Your task to perform on an android device: turn off notifications settings in the gmail app Image 0: 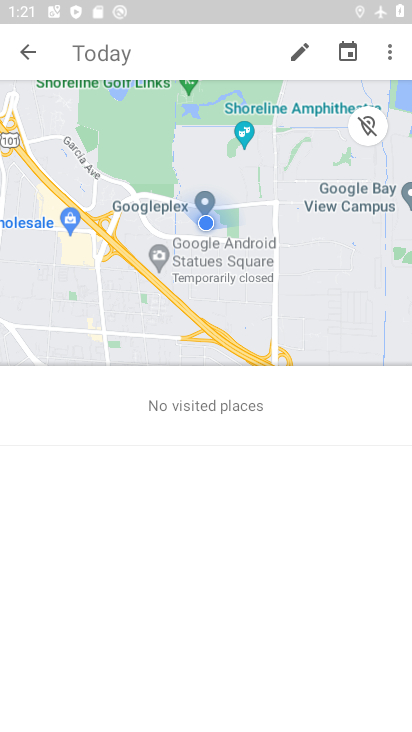
Step 0: press home button
Your task to perform on an android device: turn off notifications settings in the gmail app Image 1: 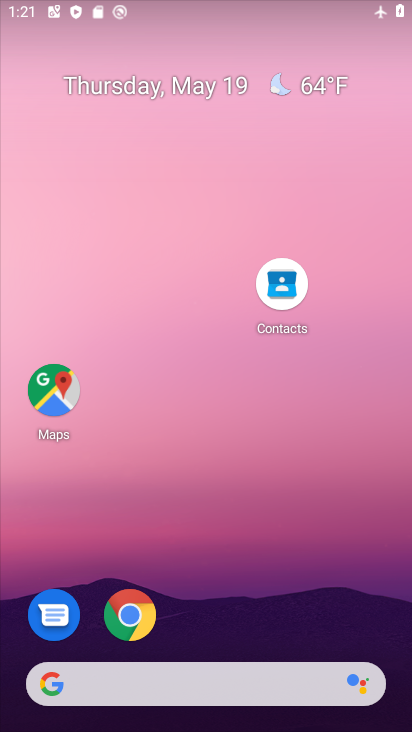
Step 1: drag from (222, 646) to (270, 163)
Your task to perform on an android device: turn off notifications settings in the gmail app Image 2: 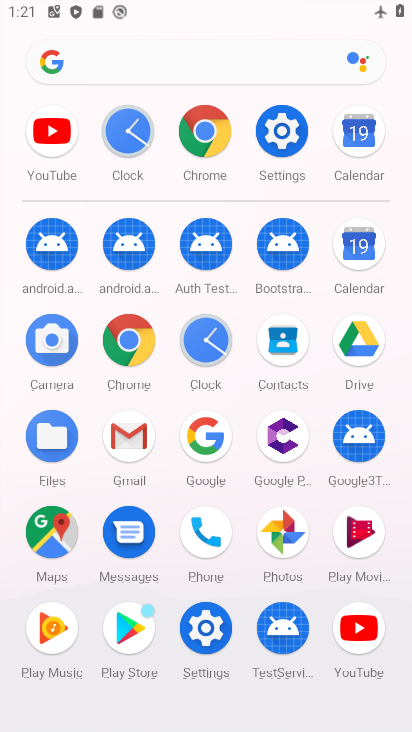
Step 2: click (127, 449)
Your task to perform on an android device: turn off notifications settings in the gmail app Image 3: 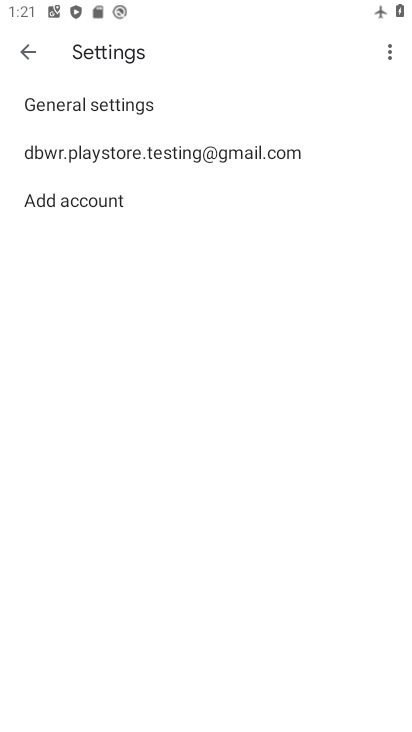
Step 3: click (107, 104)
Your task to perform on an android device: turn off notifications settings in the gmail app Image 4: 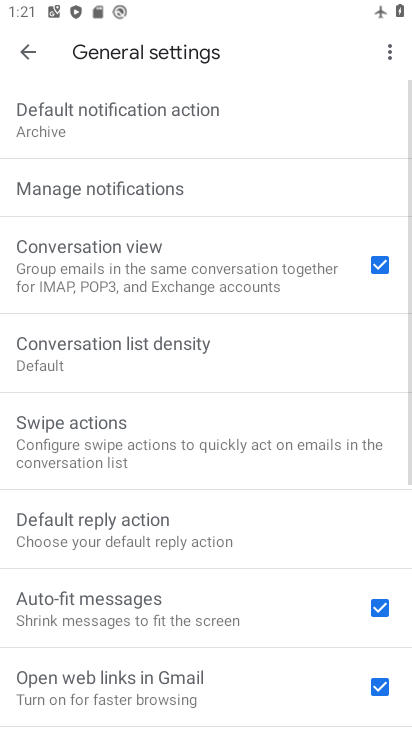
Step 4: click (118, 187)
Your task to perform on an android device: turn off notifications settings in the gmail app Image 5: 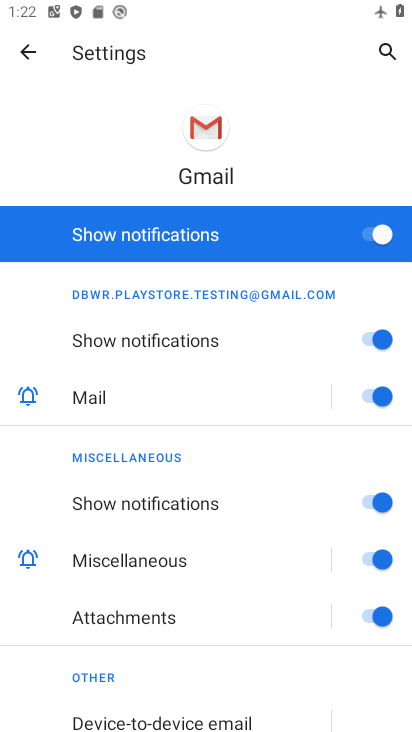
Step 5: click (268, 230)
Your task to perform on an android device: turn off notifications settings in the gmail app Image 6: 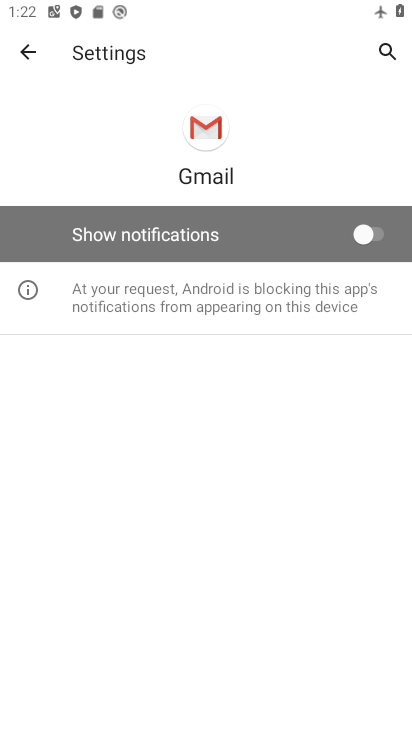
Step 6: task complete